Your task to perform on an android device: Do I have any events this weekend? Image 0: 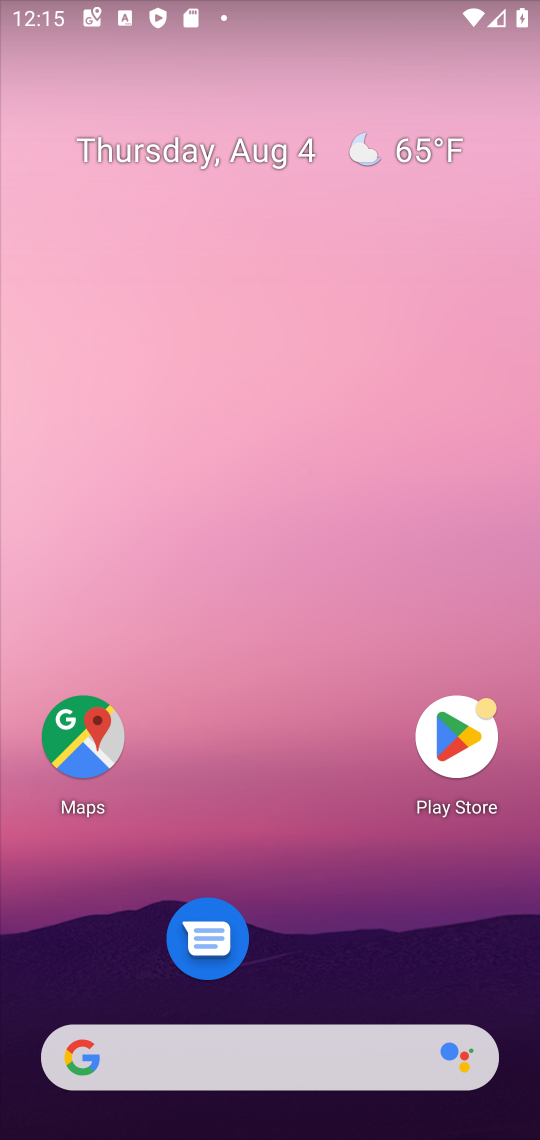
Step 0: drag from (283, 583) to (272, 95)
Your task to perform on an android device: Do I have any events this weekend? Image 1: 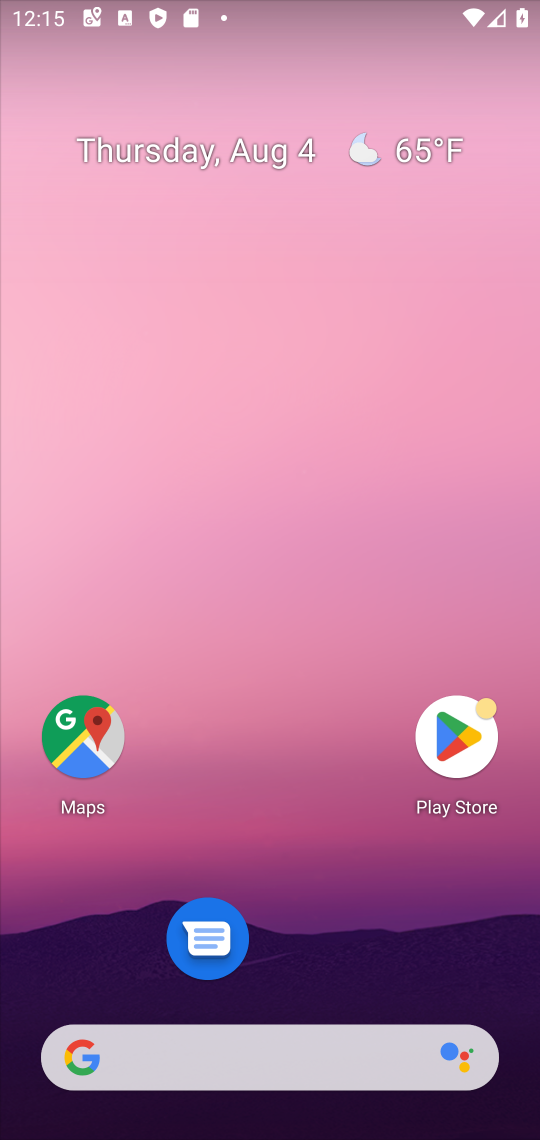
Step 1: drag from (305, 1068) to (341, 54)
Your task to perform on an android device: Do I have any events this weekend? Image 2: 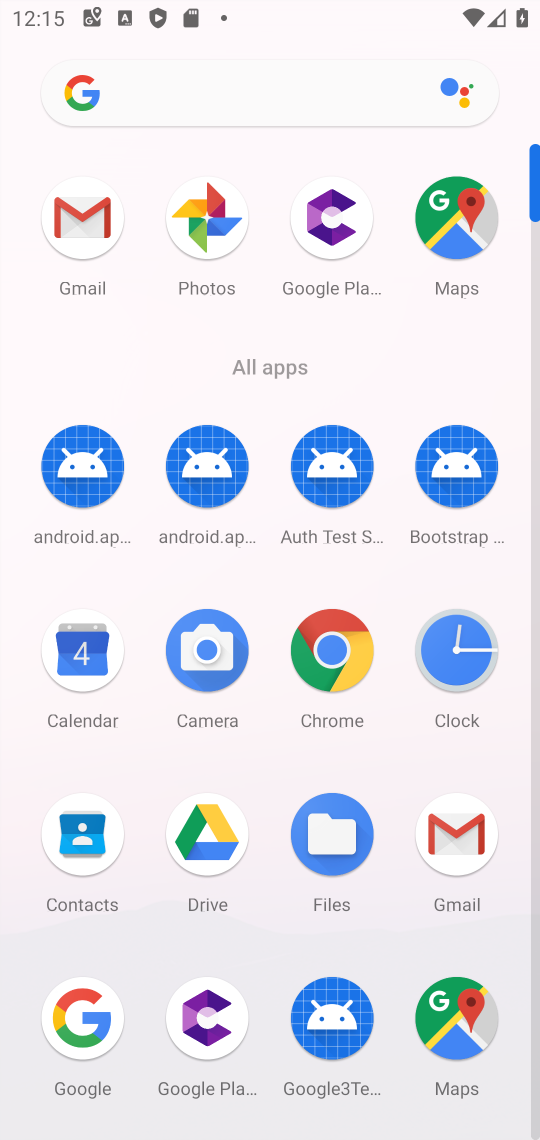
Step 2: click (96, 654)
Your task to perform on an android device: Do I have any events this weekend? Image 3: 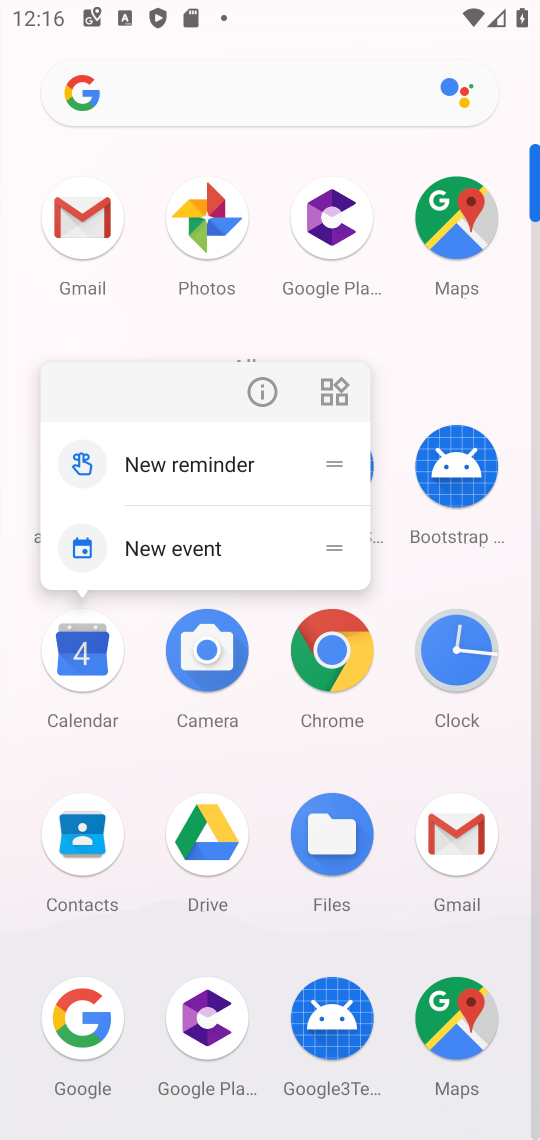
Step 3: click (87, 661)
Your task to perform on an android device: Do I have any events this weekend? Image 4: 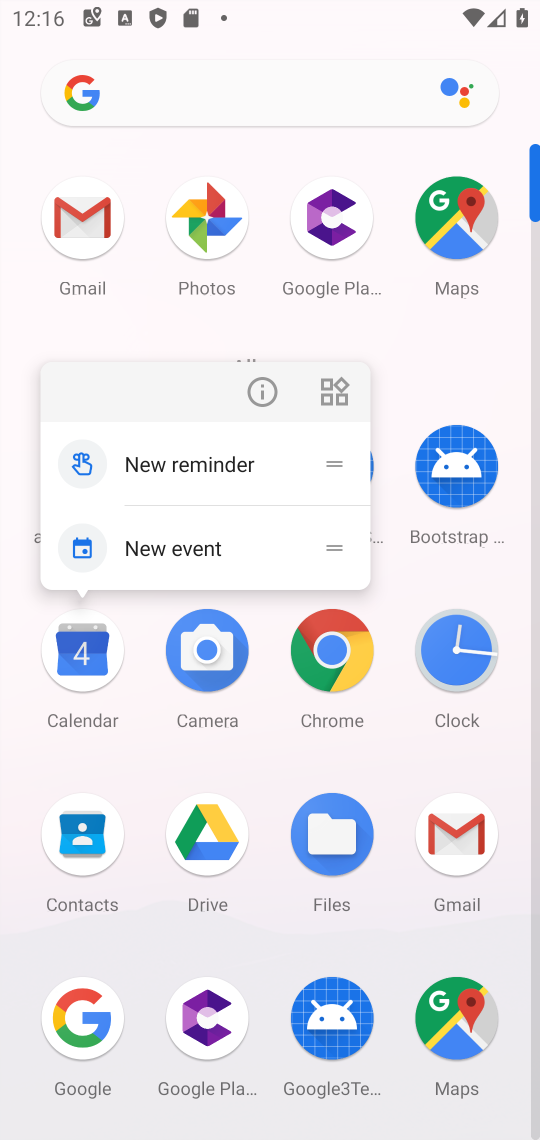
Step 4: click (87, 661)
Your task to perform on an android device: Do I have any events this weekend? Image 5: 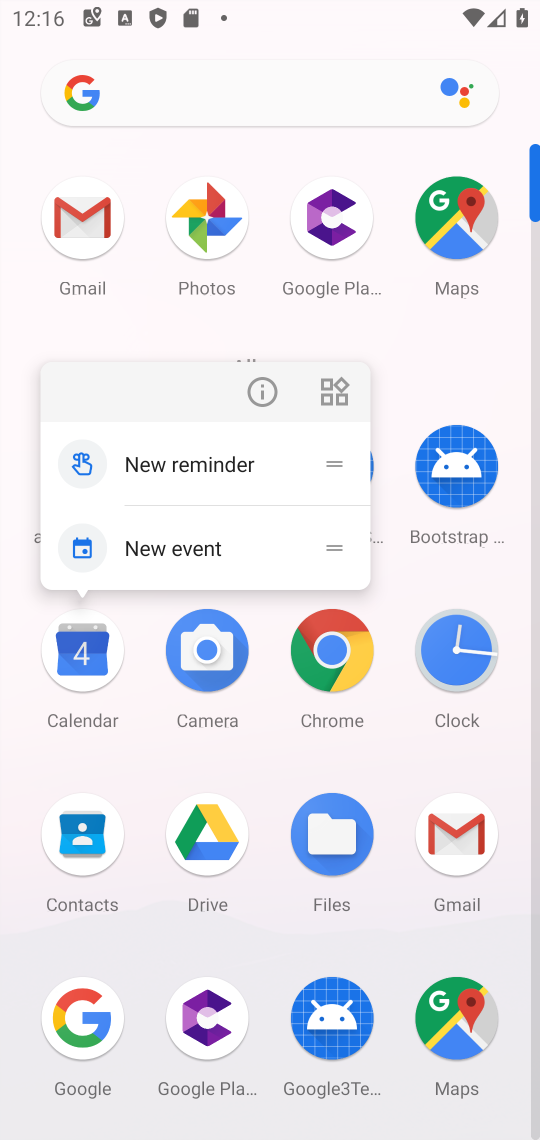
Step 5: click (132, 681)
Your task to perform on an android device: Do I have any events this weekend? Image 6: 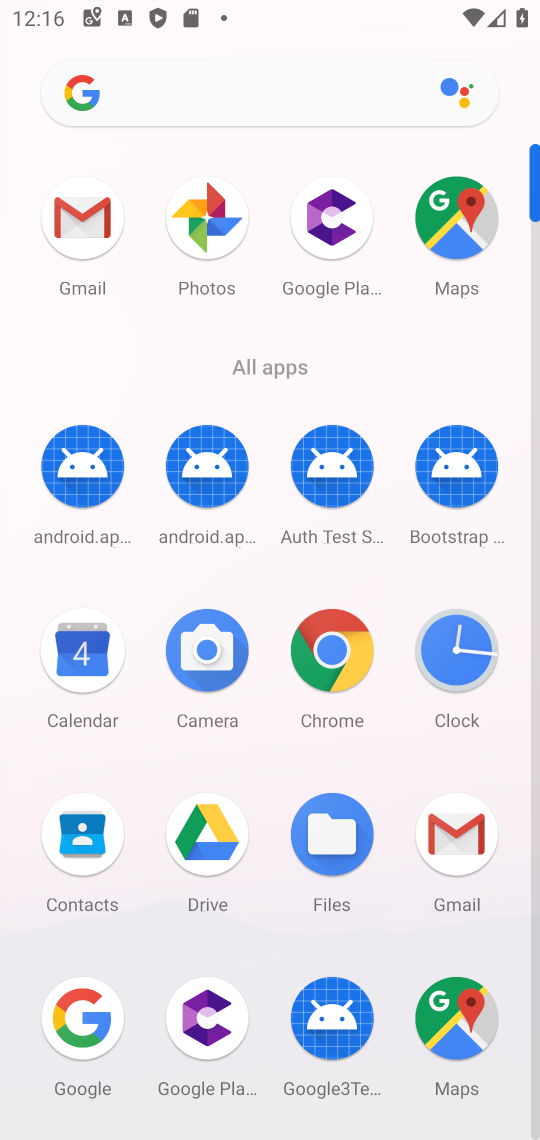
Step 6: click (100, 681)
Your task to perform on an android device: Do I have any events this weekend? Image 7: 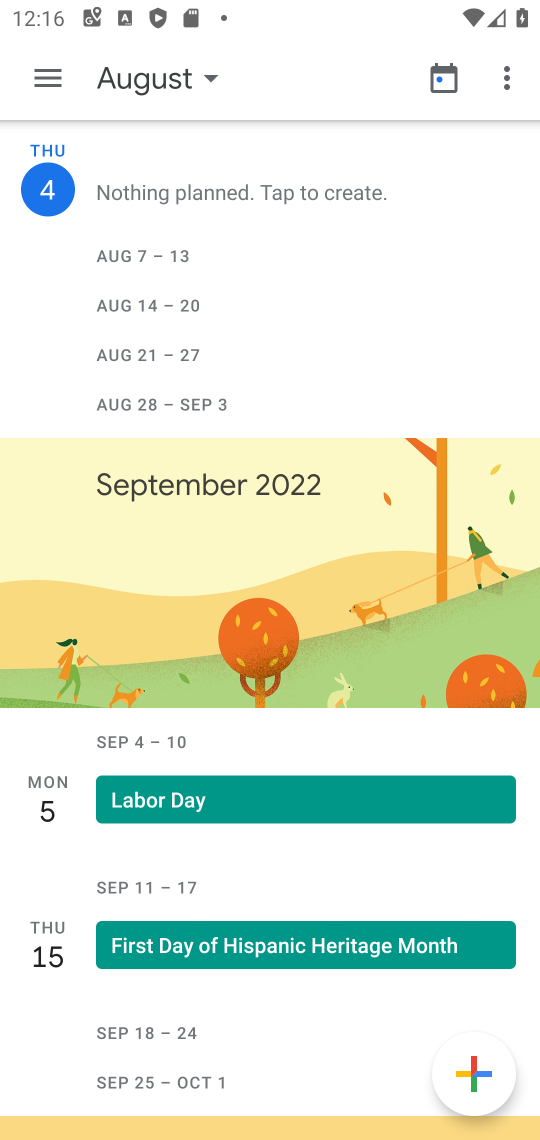
Step 7: task complete